Your task to perform on an android device: turn off sleep mode Image 0: 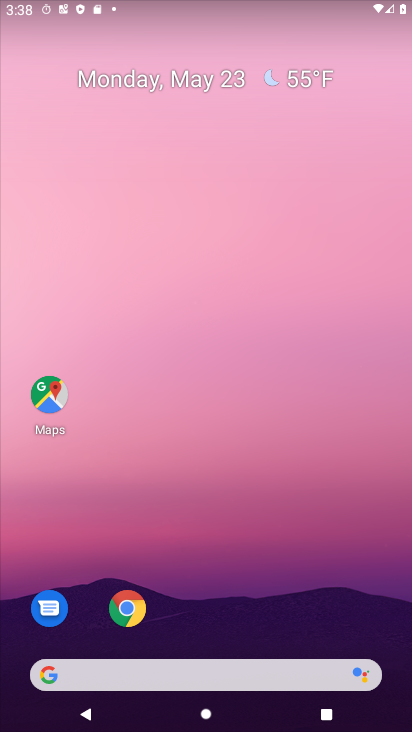
Step 0: drag from (292, 543) to (169, 41)
Your task to perform on an android device: turn off sleep mode Image 1: 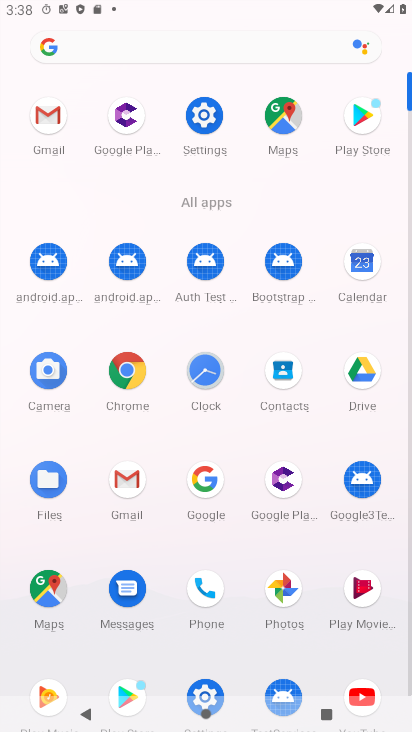
Step 1: click (209, 104)
Your task to perform on an android device: turn off sleep mode Image 2: 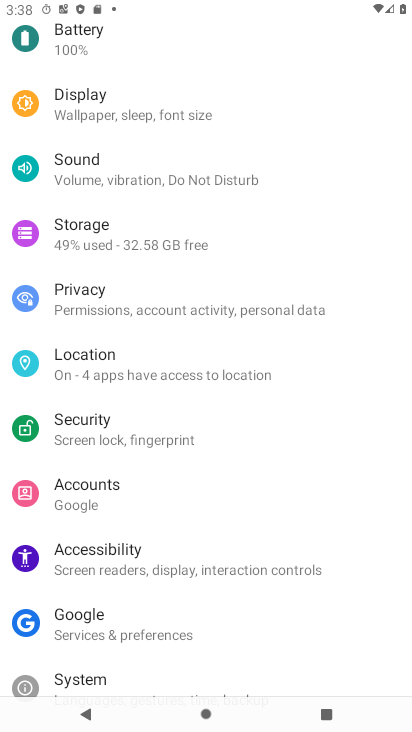
Step 2: click (174, 112)
Your task to perform on an android device: turn off sleep mode Image 3: 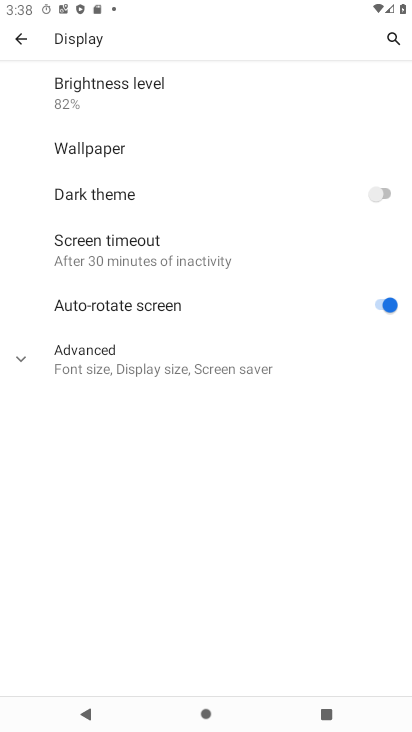
Step 3: task complete